Your task to perform on an android device: open app "PlayWell" Image 0: 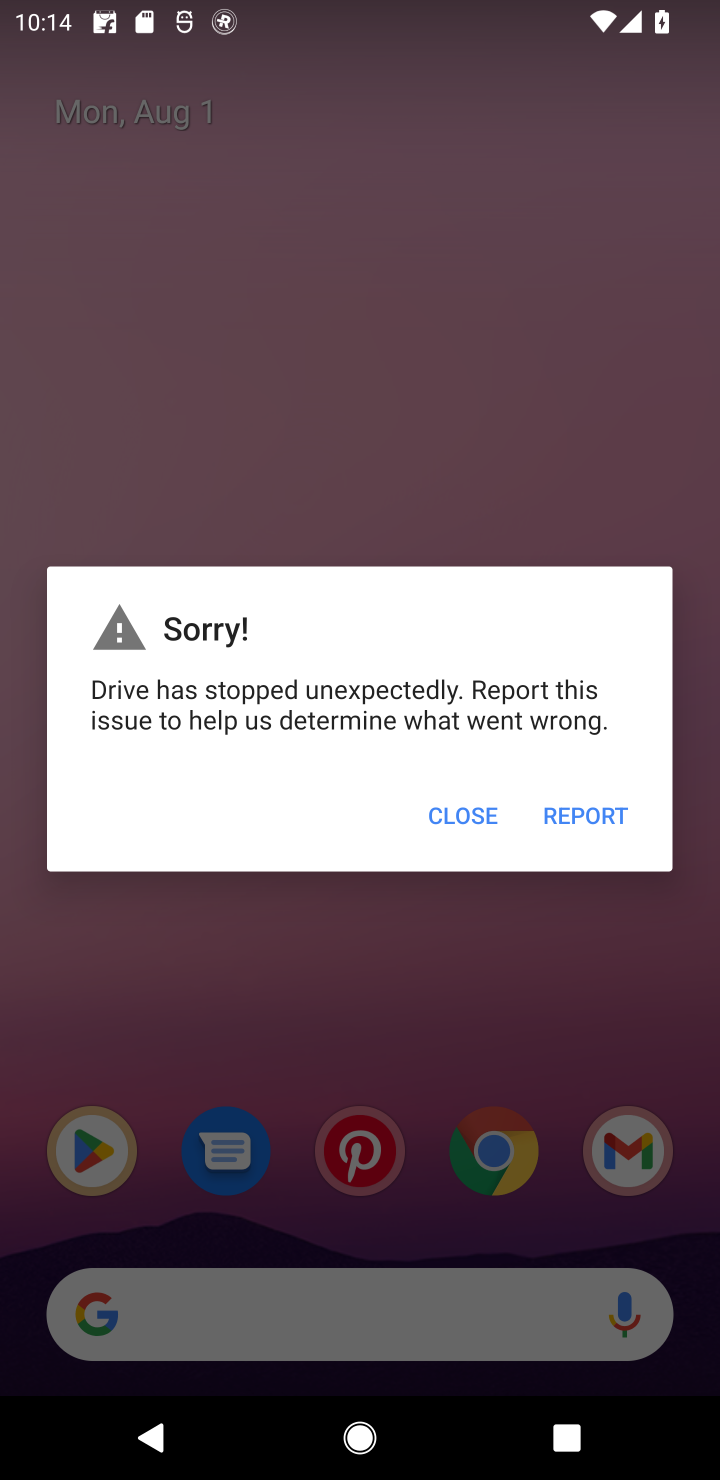
Step 0: press back button
Your task to perform on an android device: open app "PlayWell" Image 1: 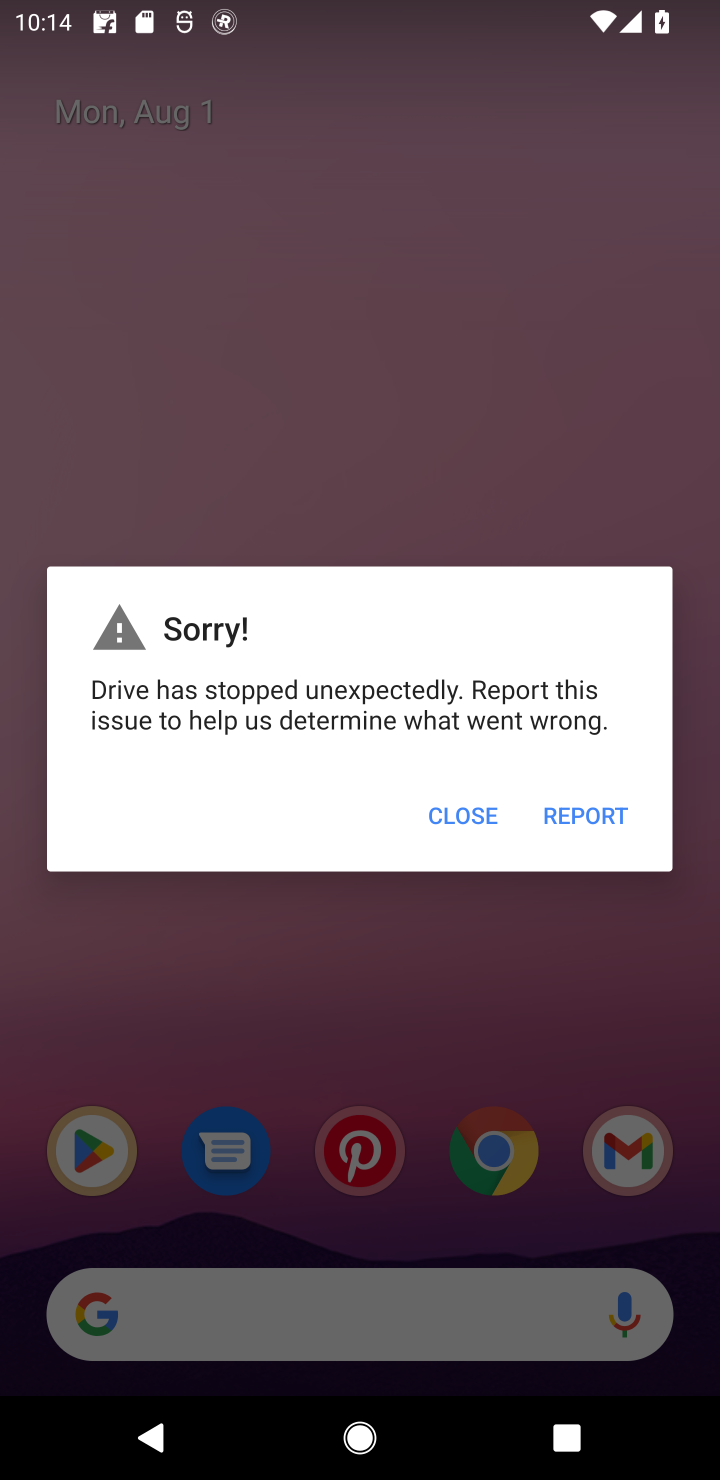
Step 1: press back button
Your task to perform on an android device: open app "PlayWell" Image 2: 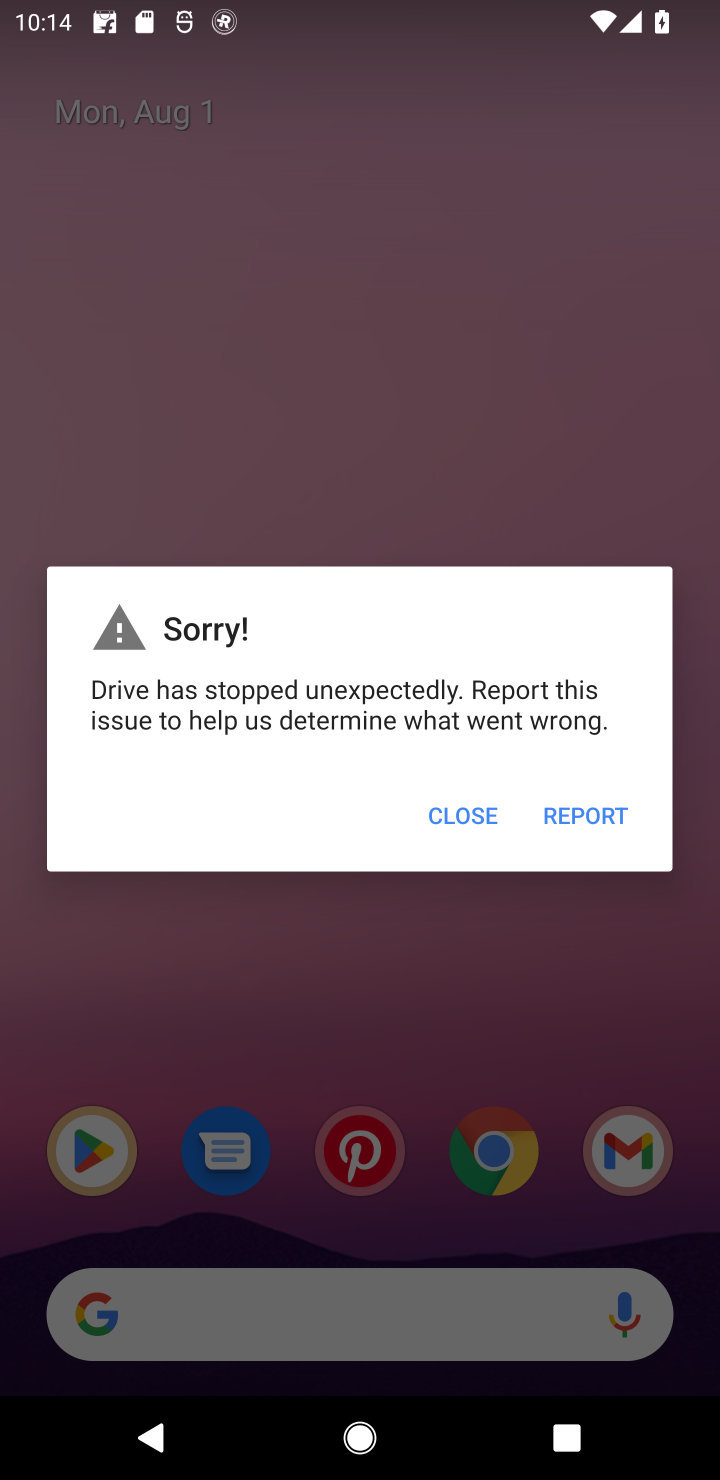
Step 2: click (438, 803)
Your task to perform on an android device: open app "PlayWell" Image 3: 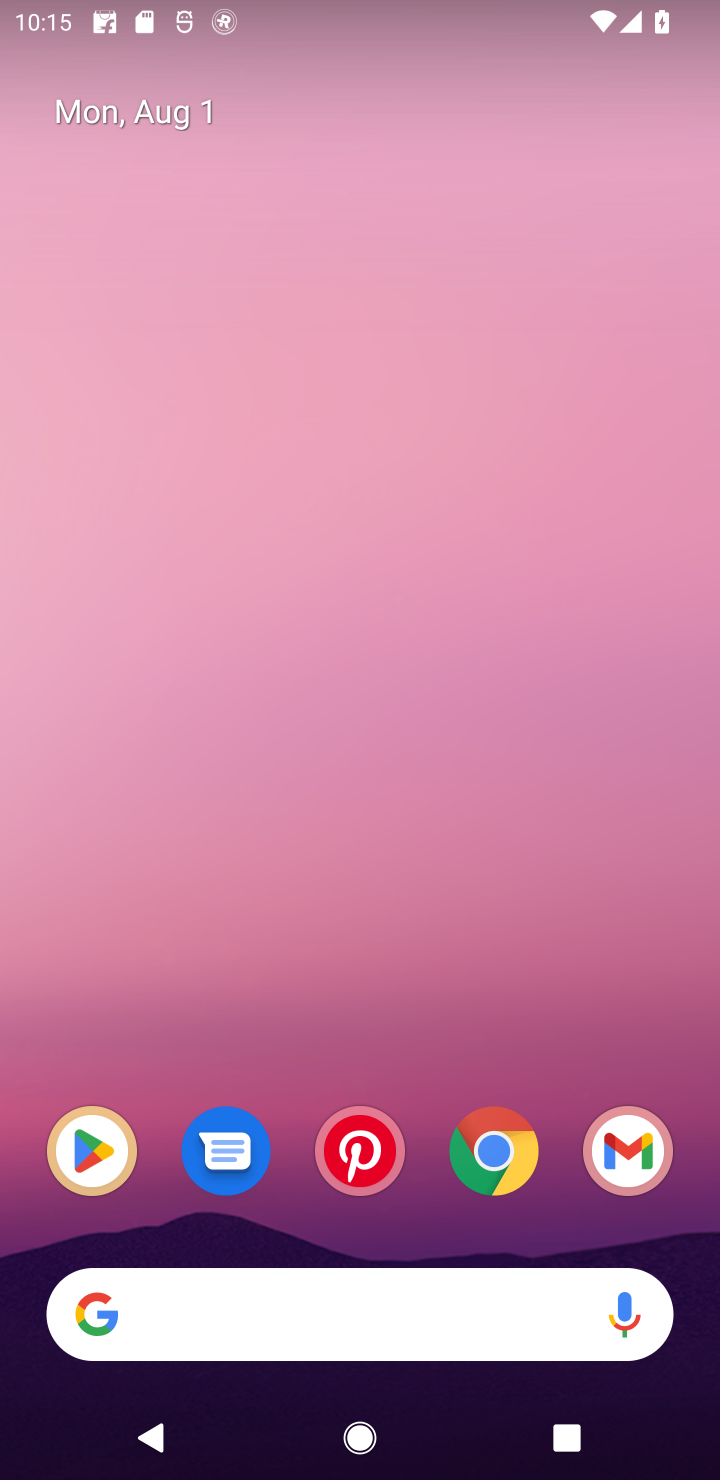
Step 3: click (88, 1125)
Your task to perform on an android device: open app "PlayWell" Image 4: 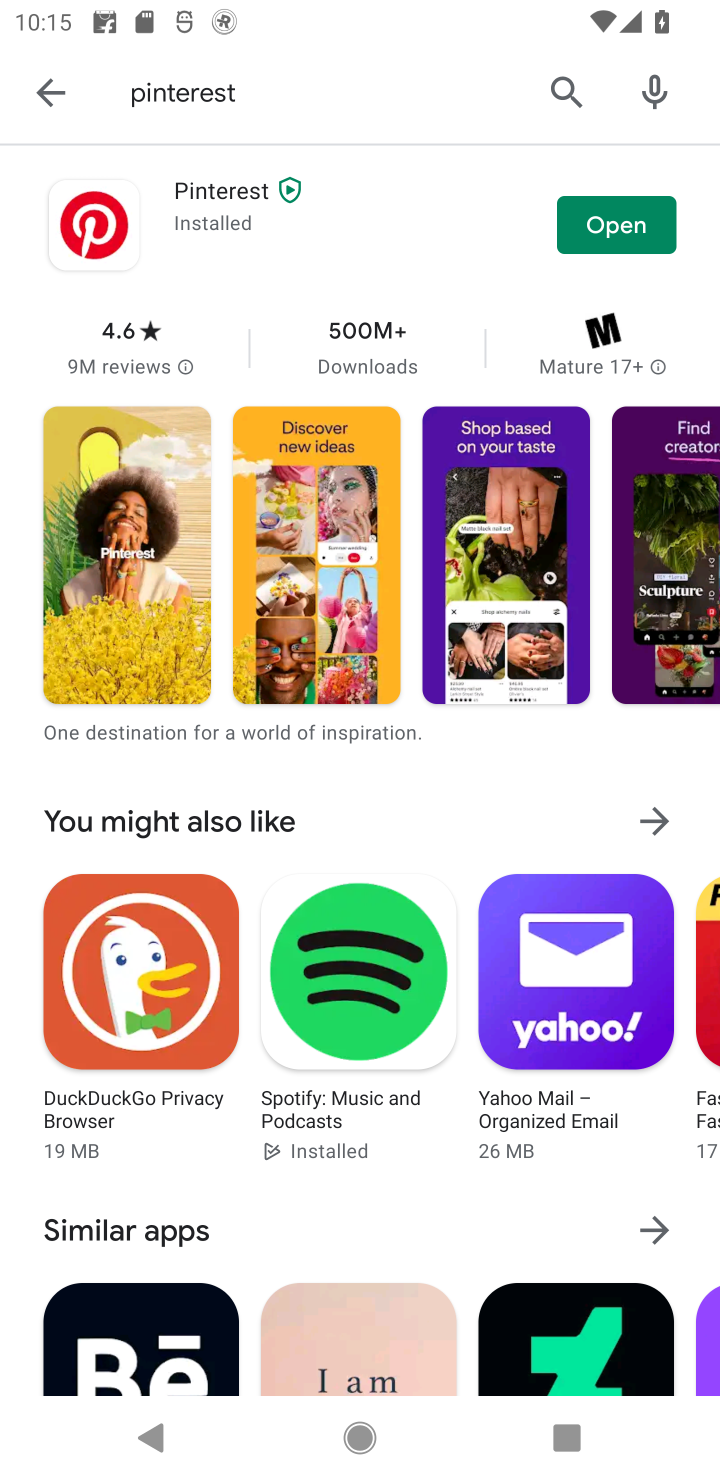
Step 4: click (568, 81)
Your task to perform on an android device: open app "PlayWell" Image 5: 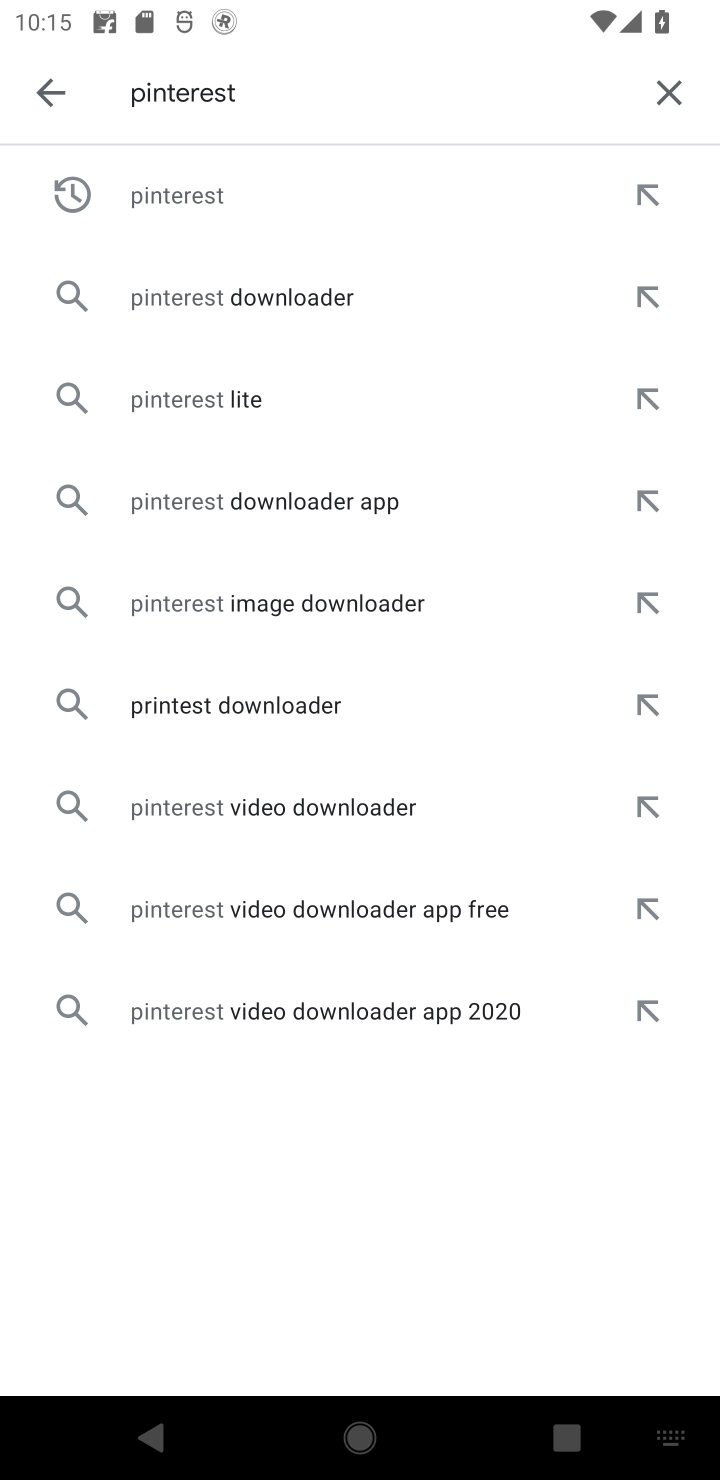
Step 5: click (673, 85)
Your task to perform on an android device: open app "PlayWell" Image 6: 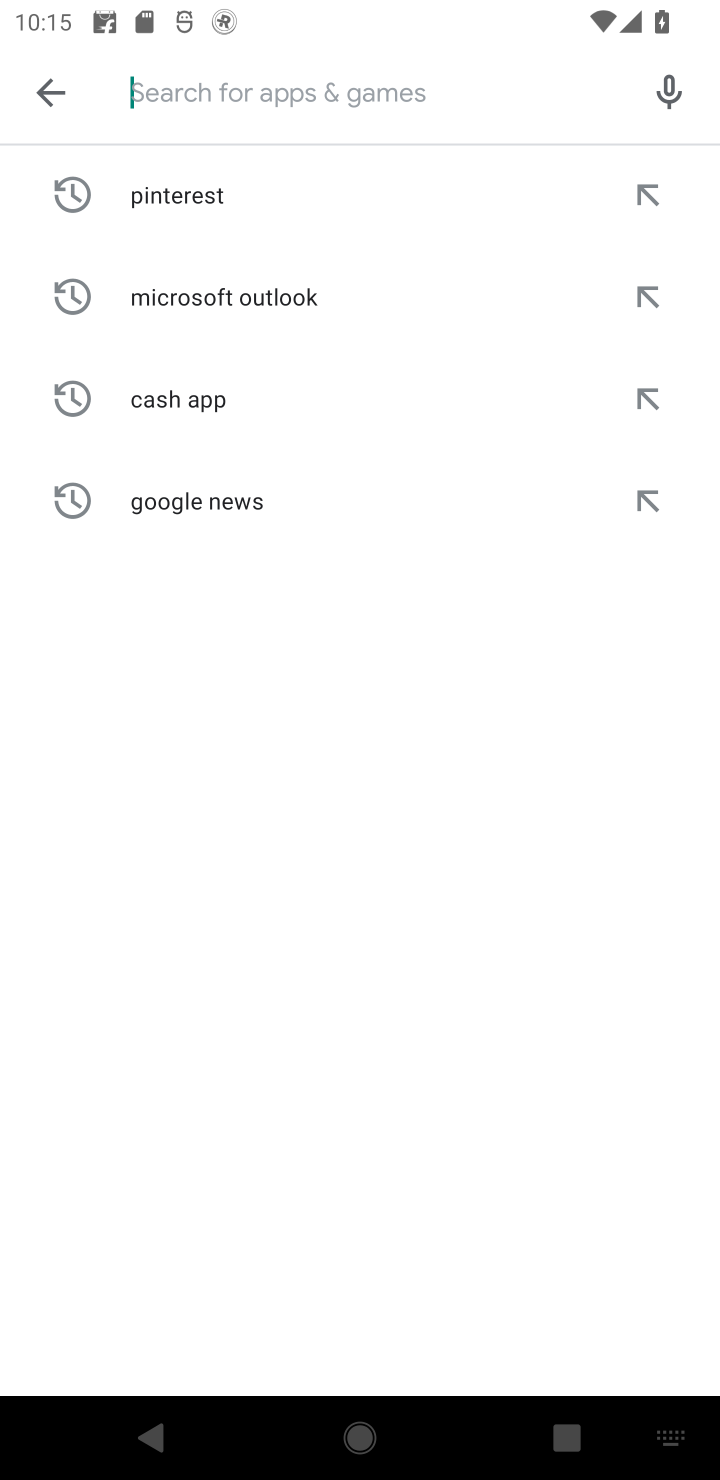
Step 6: type "PlayWell"
Your task to perform on an android device: open app "PlayWell" Image 7: 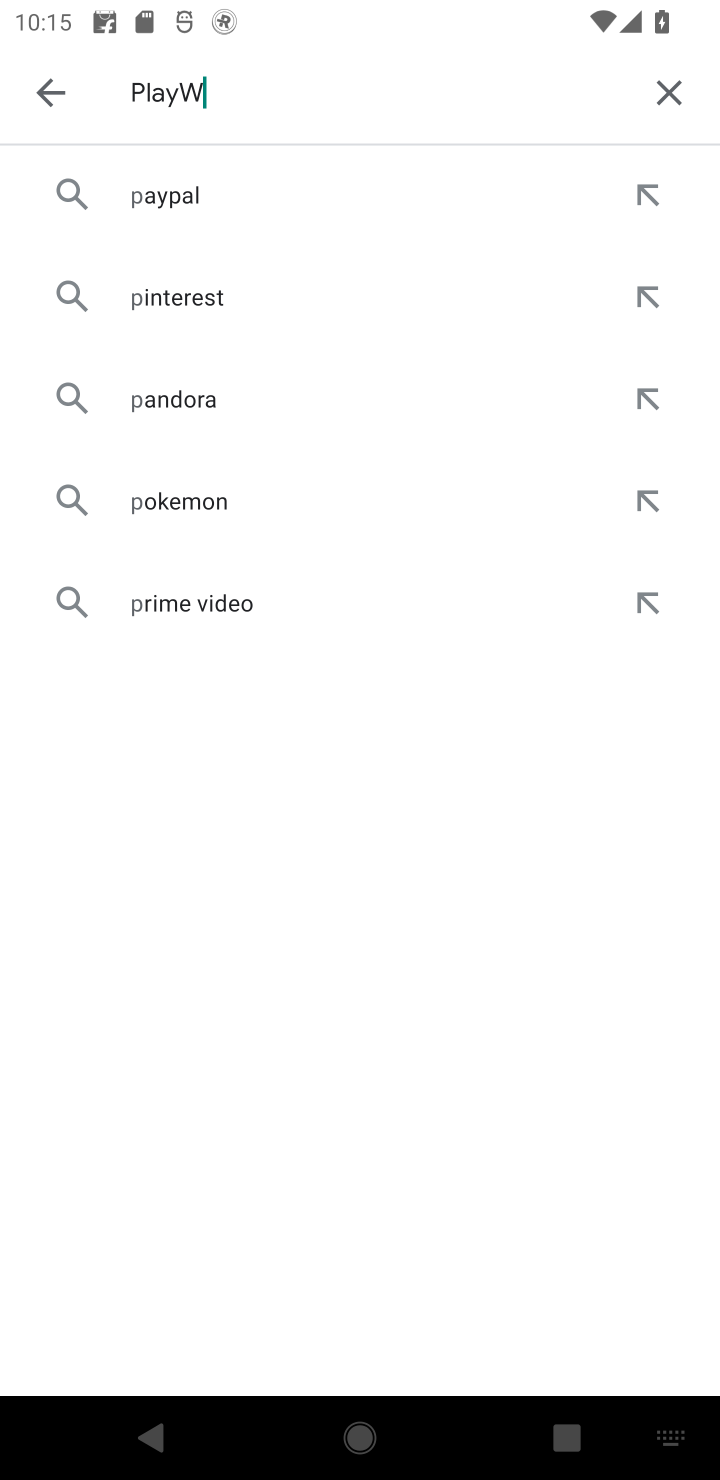
Step 7: type ""
Your task to perform on an android device: open app "PlayWell" Image 8: 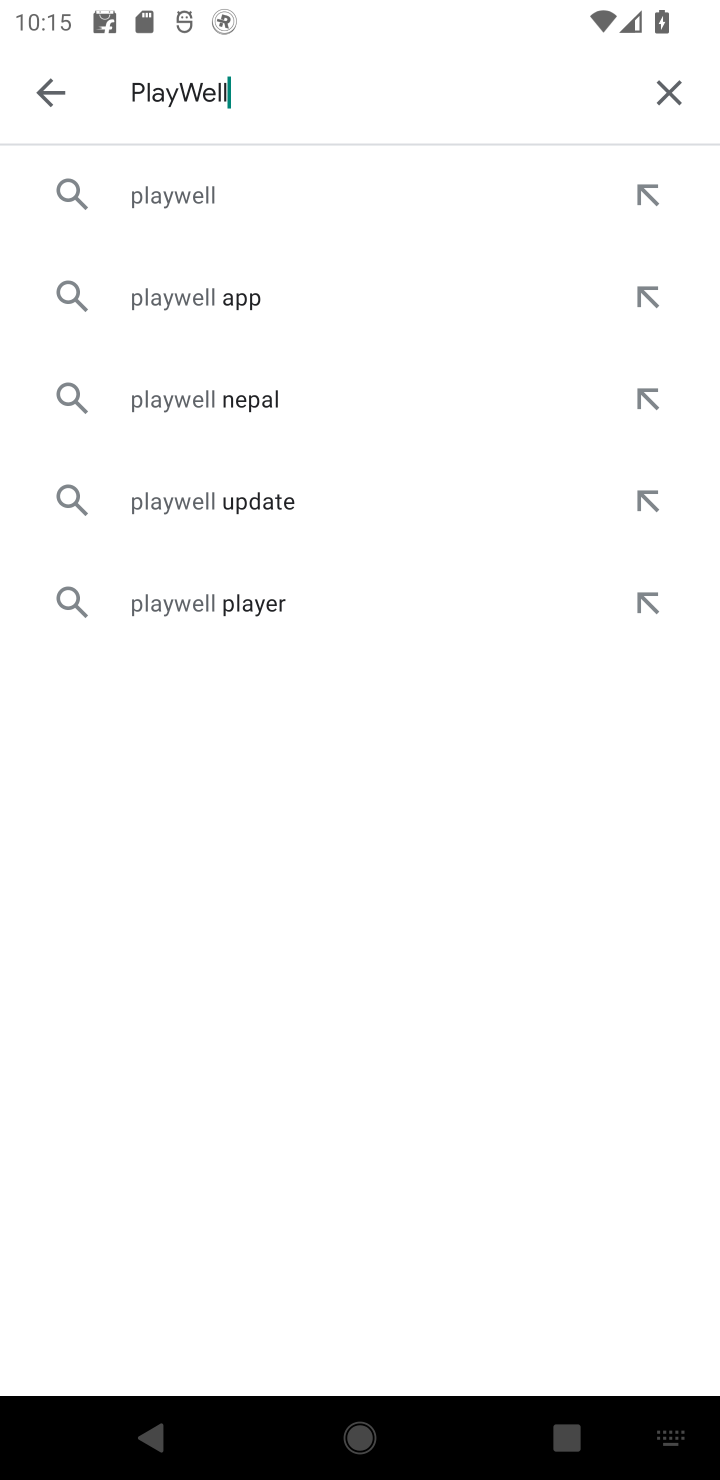
Step 8: click (207, 211)
Your task to perform on an android device: open app "PlayWell" Image 9: 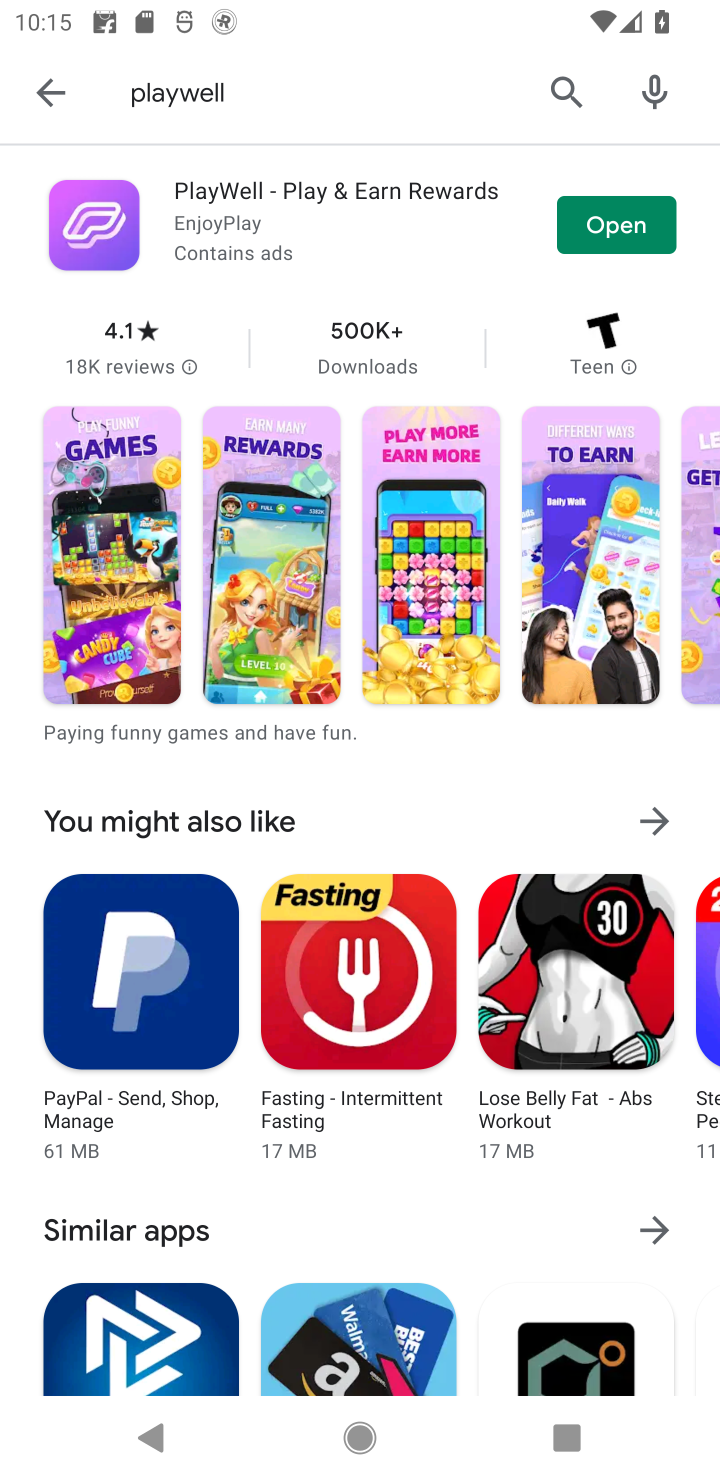
Step 9: click (607, 232)
Your task to perform on an android device: open app "PlayWell" Image 10: 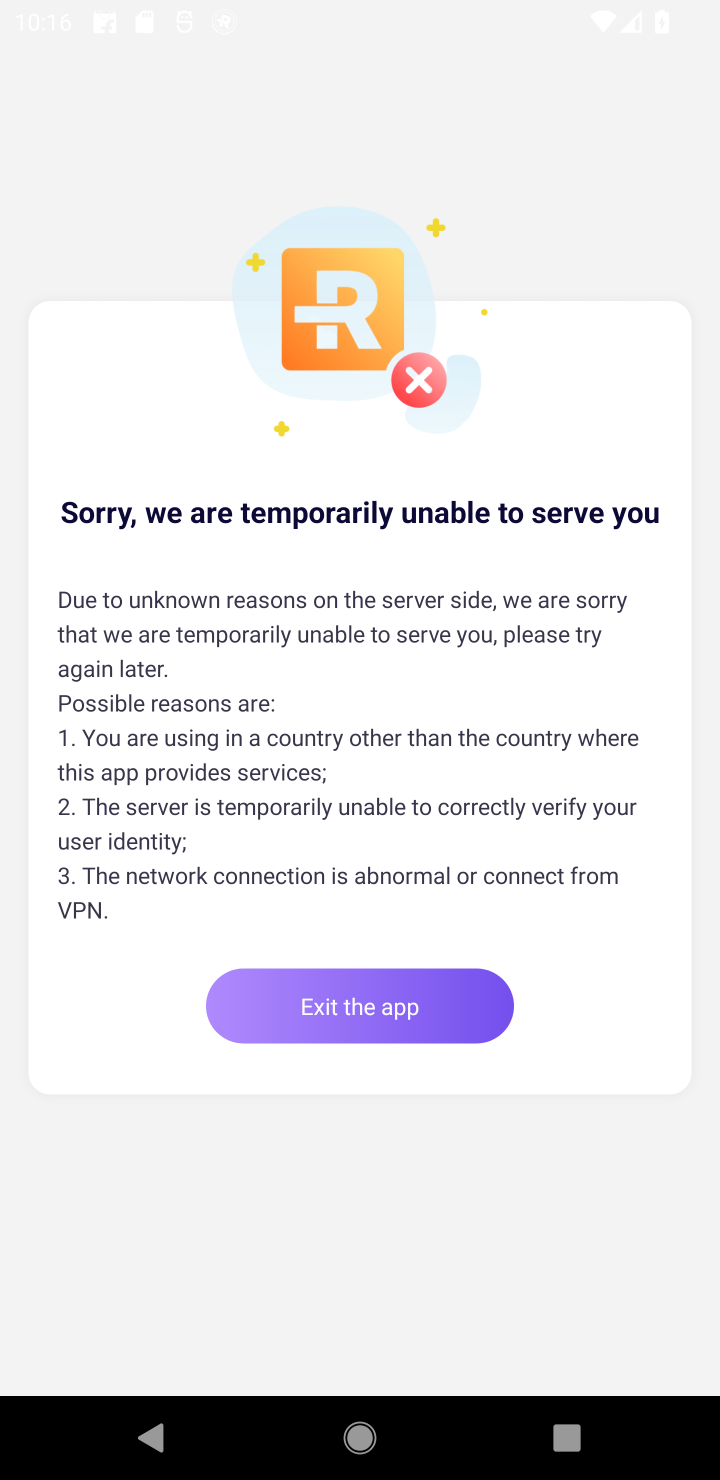
Step 10: task complete